Your task to perform on an android device: Go to notification settings Image 0: 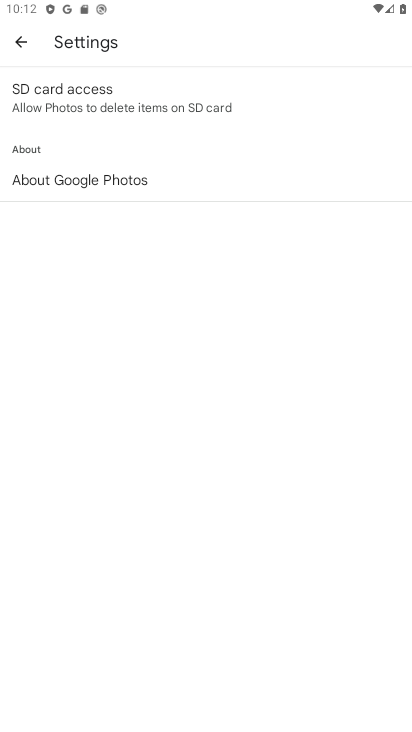
Step 0: press home button
Your task to perform on an android device: Go to notification settings Image 1: 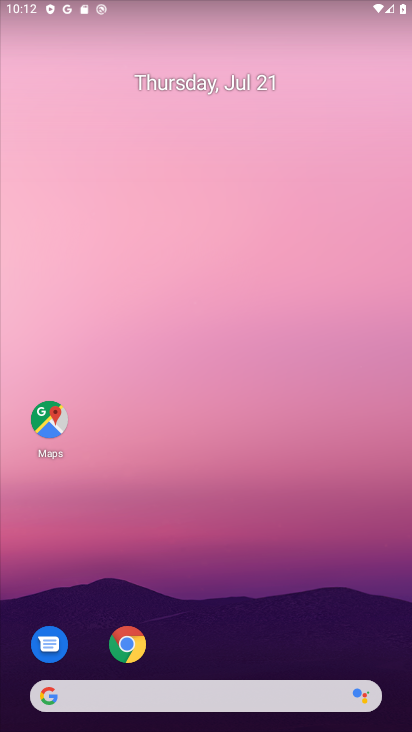
Step 1: drag from (221, 653) to (270, 0)
Your task to perform on an android device: Go to notification settings Image 2: 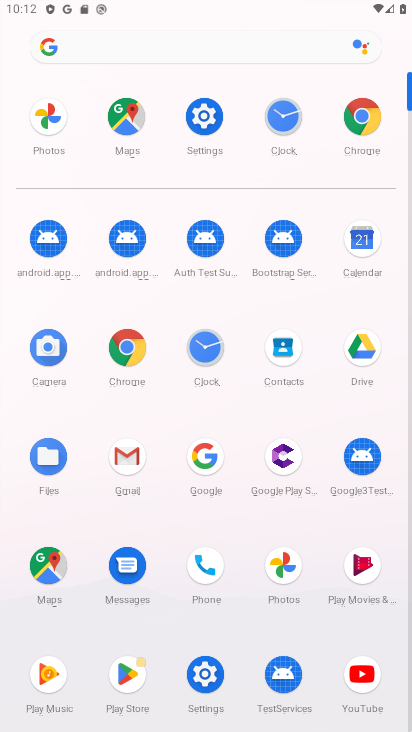
Step 2: click (203, 111)
Your task to perform on an android device: Go to notification settings Image 3: 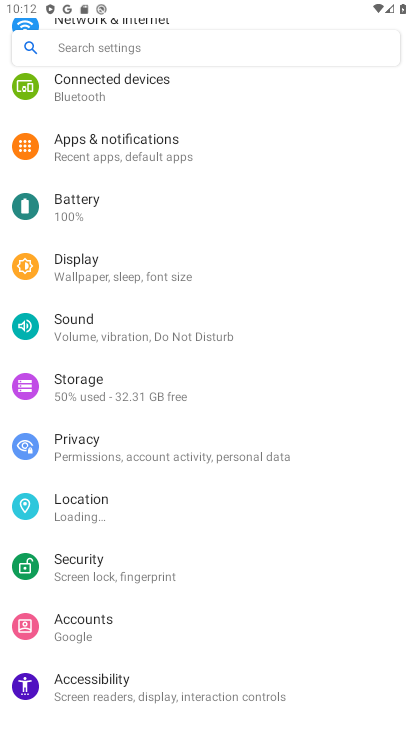
Step 3: click (186, 138)
Your task to perform on an android device: Go to notification settings Image 4: 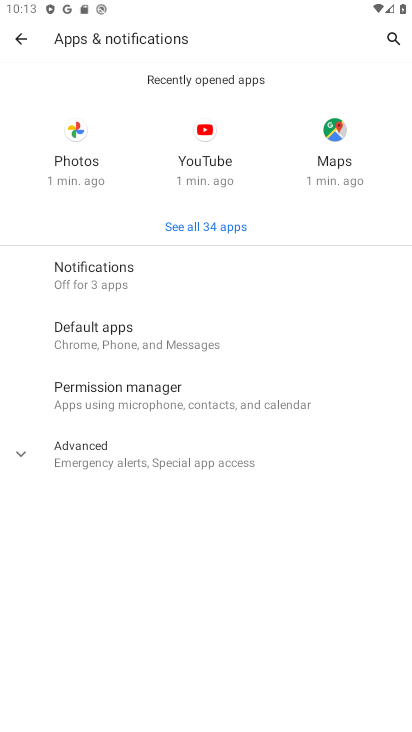
Step 4: click (88, 262)
Your task to perform on an android device: Go to notification settings Image 5: 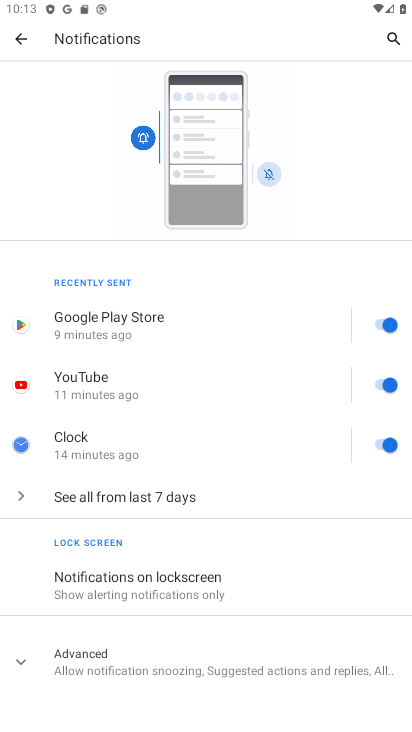
Step 5: click (19, 662)
Your task to perform on an android device: Go to notification settings Image 6: 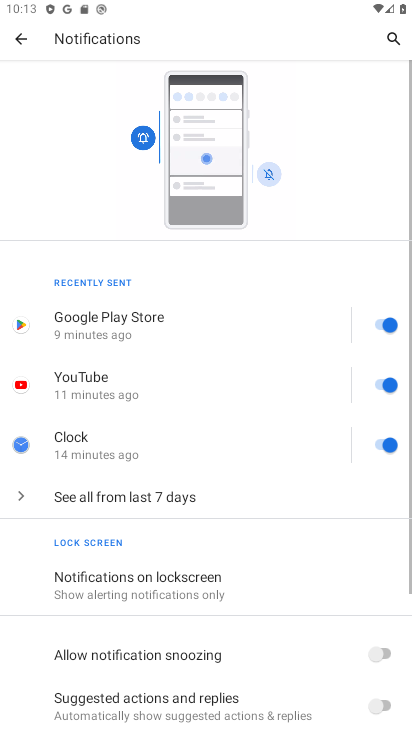
Step 6: task complete